Your task to perform on an android device: Go to Google Image 0: 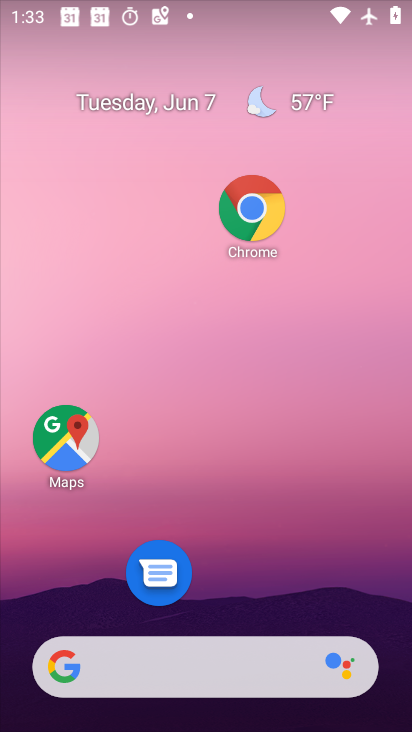
Step 0: drag from (219, 600) to (173, 191)
Your task to perform on an android device: Go to Google Image 1: 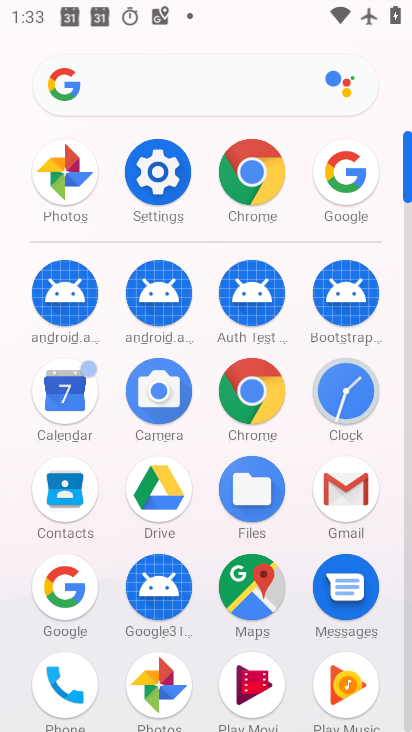
Step 1: click (355, 189)
Your task to perform on an android device: Go to Google Image 2: 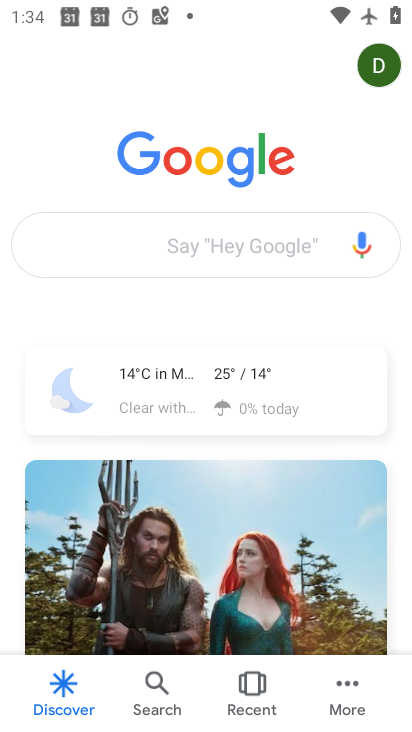
Step 2: task complete